Your task to perform on an android device: turn vacation reply on in the gmail app Image 0: 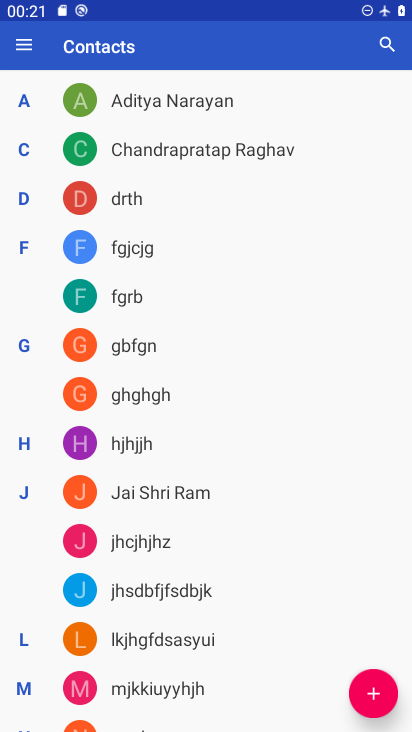
Step 0: press home button
Your task to perform on an android device: turn vacation reply on in the gmail app Image 1: 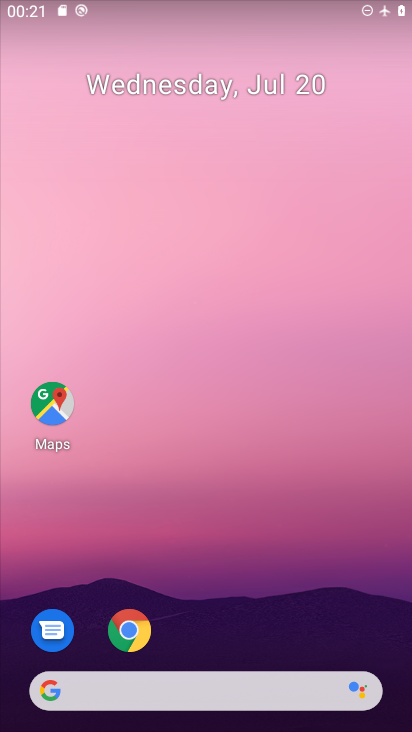
Step 1: drag from (222, 591) to (223, 167)
Your task to perform on an android device: turn vacation reply on in the gmail app Image 2: 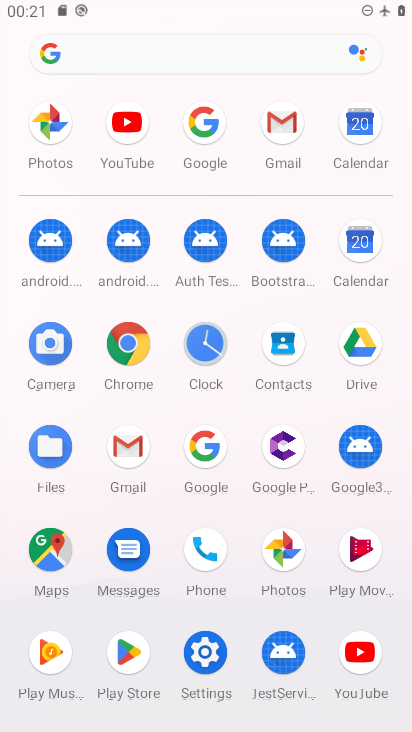
Step 2: click (289, 137)
Your task to perform on an android device: turn vacation reply on in the gmail app Image 3: 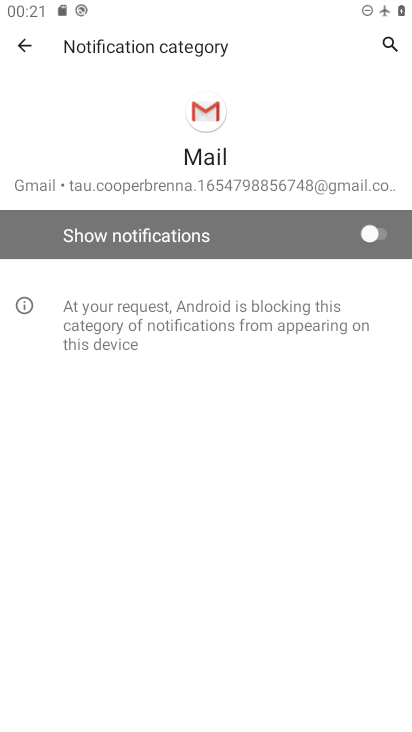
Step 3: click (15, 38)
Your task to perform on an android device: turn vacation reply on in the gmail app Image 4: 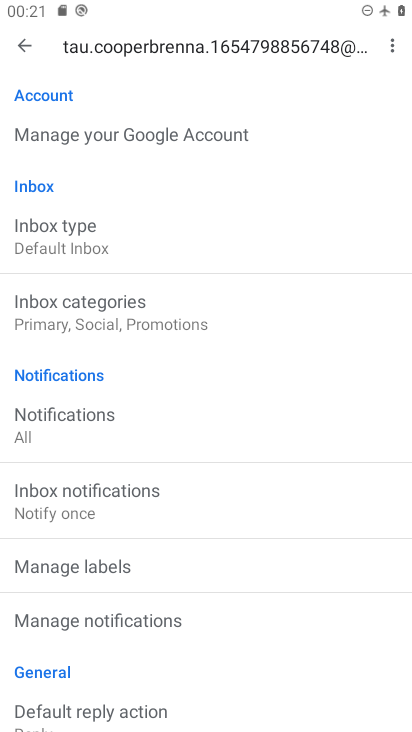
Step 4: drag from (146, 656) to (163, 267)
Your task to perform on an android device: turn vacation reply on in the gmail app Image 5: 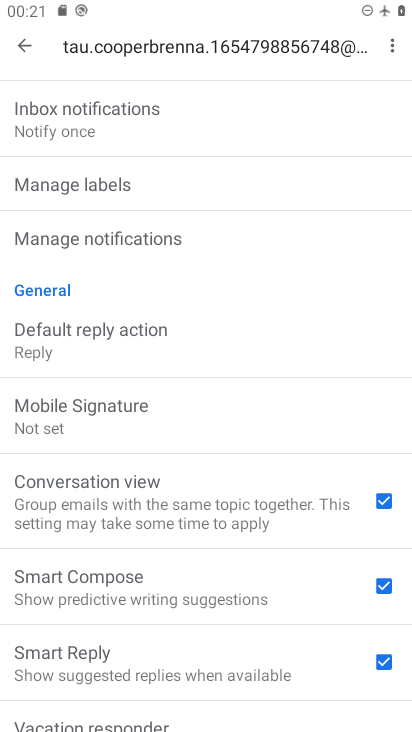
Step 5: drag from (153, 665) to (167, 302)
Your task to perform on an android device: turn vacation reply on in the gmail app Image 6: 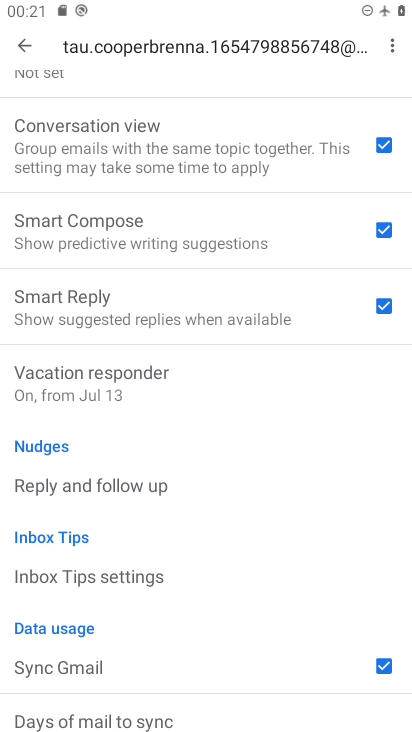
Step 6: click (120, 396)
Your task to perform on an android device: turn vacation reply on in the gmail app Image 7: 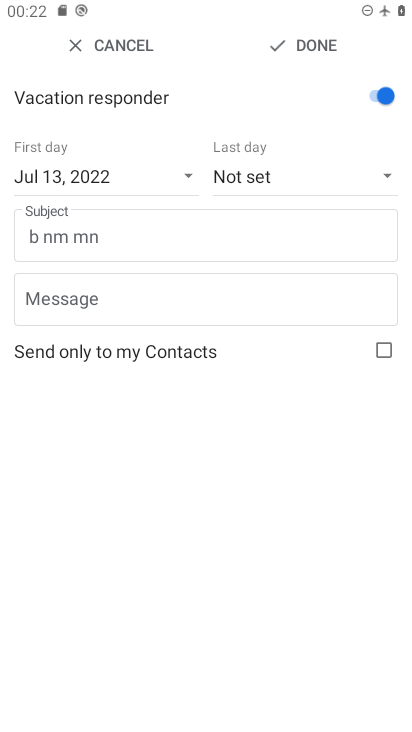
Step 7: task complete